Your task to perform on an android device: turn off airplane mode Image 0: 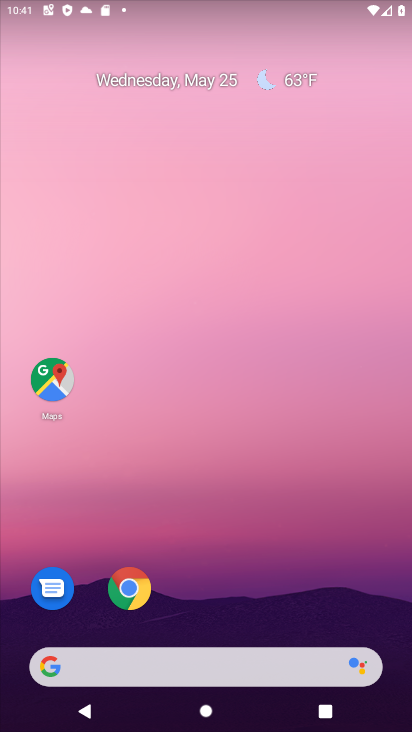
Step 0: drag from (343, 5) to (314, 637)
Your task to perform on an android device: turn off airplane mode Image 1: 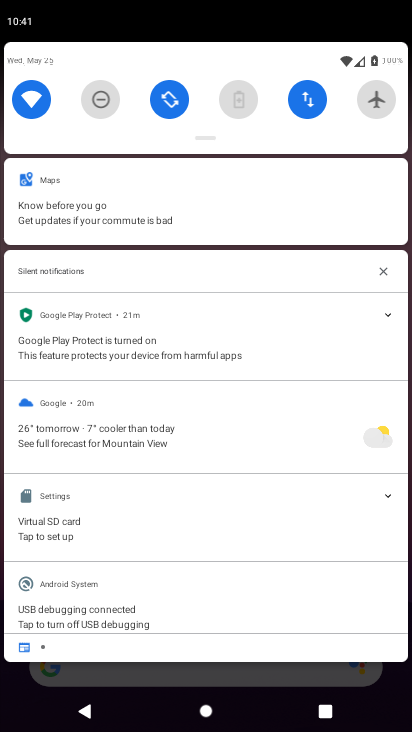
Step 1: task complete